Your task to perform on an android device: set default search engine in the chrome app Image 0: 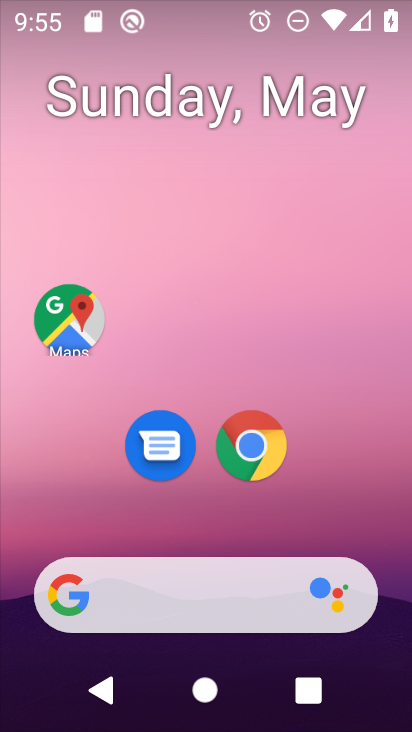
Step 0: drag from (233, 612) to (234, 164)
Your task to perform on an android device: set default search engine in the chrome app Image 1: 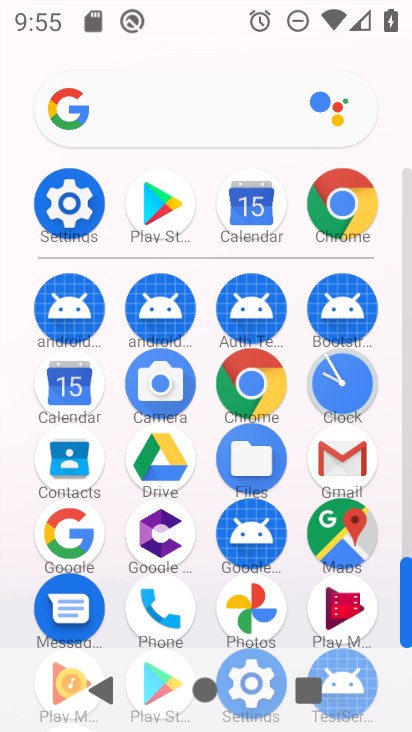
Step 1: click (256, 414)
Your task to perform on an android device: set default search engine in the chrome app Image 2: 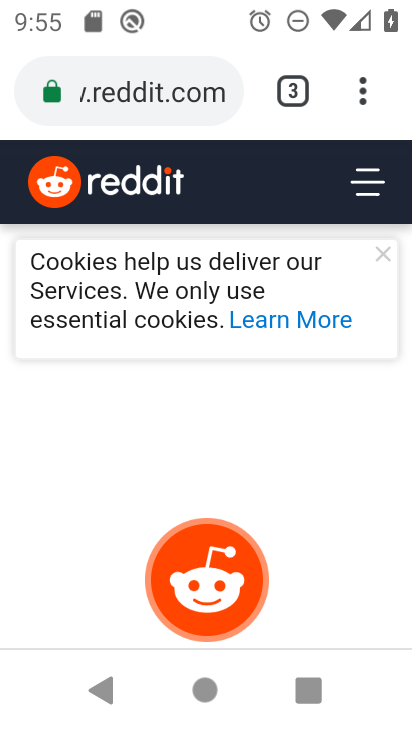
Step 2: click (360, 111)
Your task to perform on an android device: set default search engine in the chrome app Image 3: 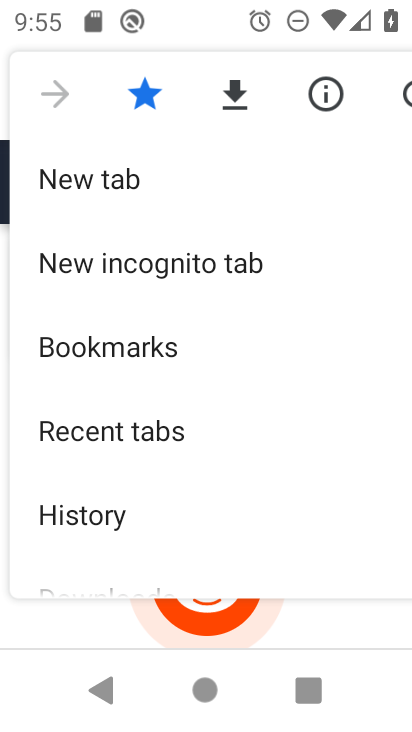
Step 3: drag from (152, 458) to (181, 203)
Your task to perform on an android device: set default search engine in the chrome app Image 4: 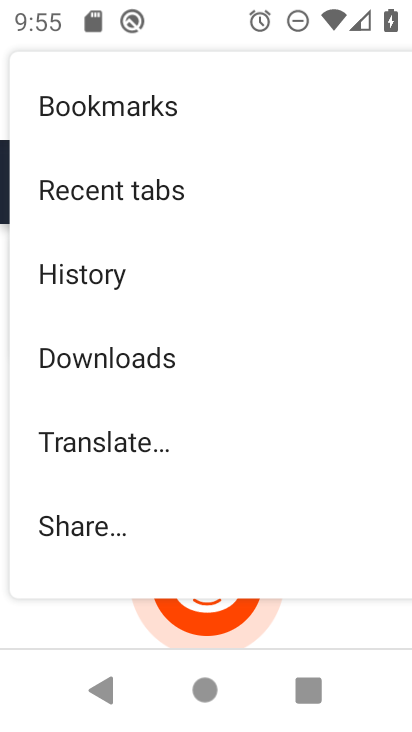
Step 4: drag from (122, 434) to (149, 201)
Your task to perform on an android device: set default search engine in the chrome app Image 5: 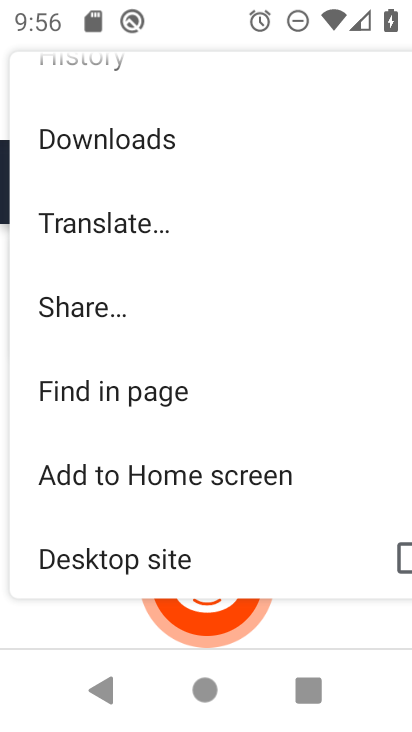
Step 5: drag from (171, 439) to (215, 212)
Your task to perform on an android device: set default search engine in the chrome app Image 6: 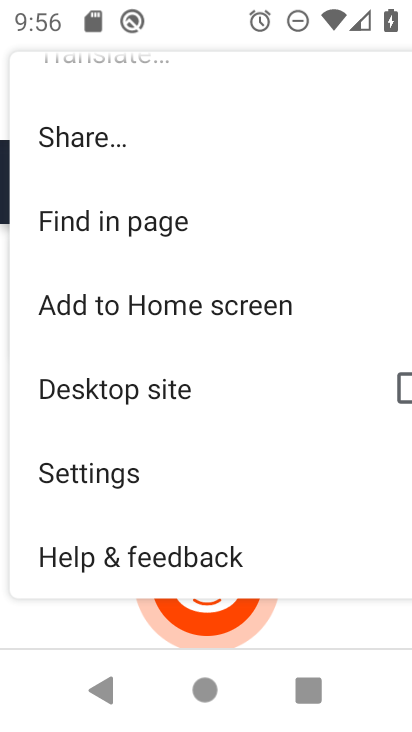
Step 6: click (110, 476)
Your task to perform on an android device: set default search engine in the chrome app Image 7: 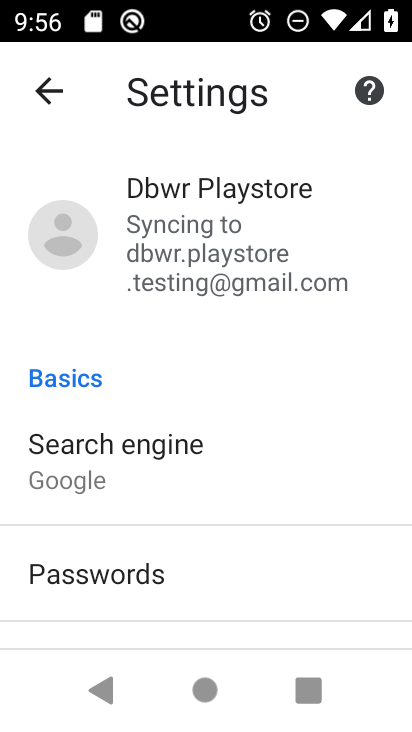
Step 7: drag from (221, 535) to (221, 432)
Your task to perform on an android device: set default search engine in the chrome app Image 8: 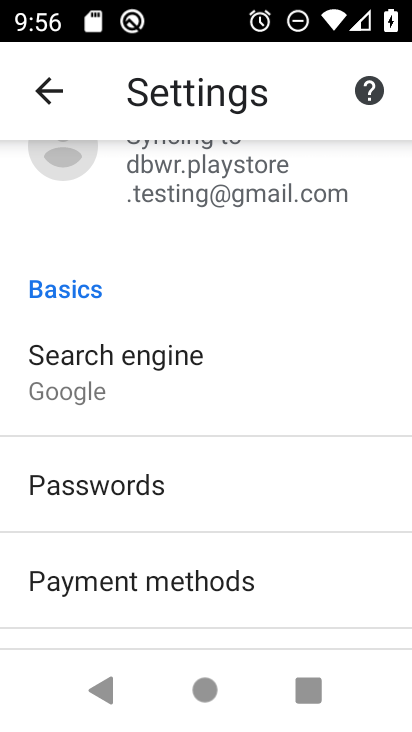
Step 8: click (170, 359)
Your task to perform on an android device: set default search engine in the chrome app Image 9: 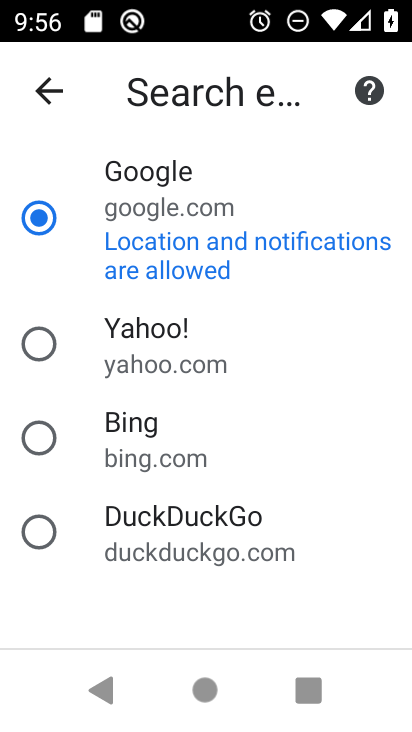
Step 9: task complete